Your task to perform on an android device: empty trash in the gmail app Image 0: 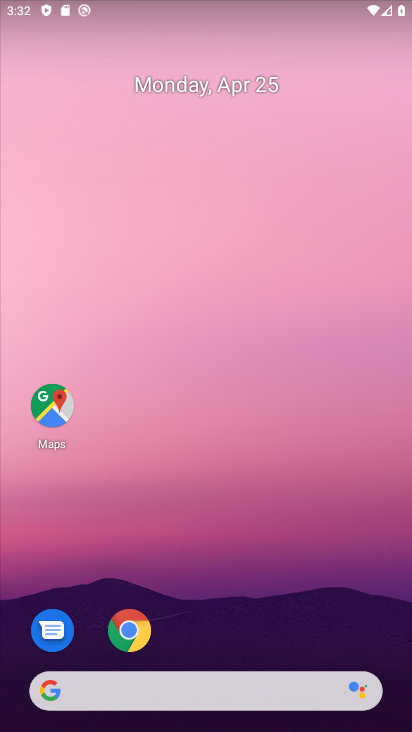
Step 0: drag from (353, 486) to (365, 115)
Your task to perform on an android device: empty trash in the gmail app Image 1: 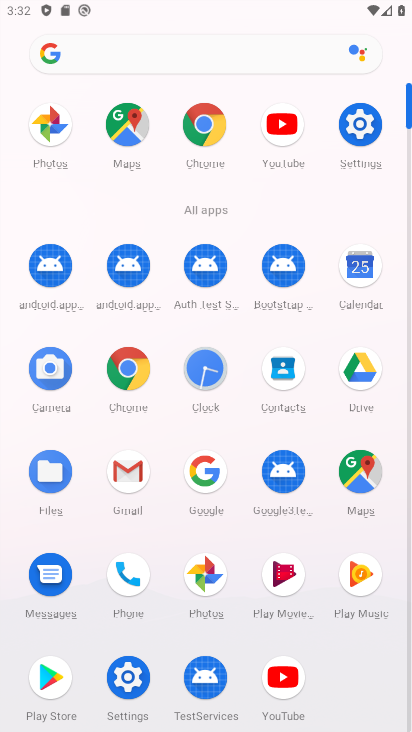
Step 1: click (138, 467)
Your task to perform on an android device: empty trash in the gmail app Image 2: 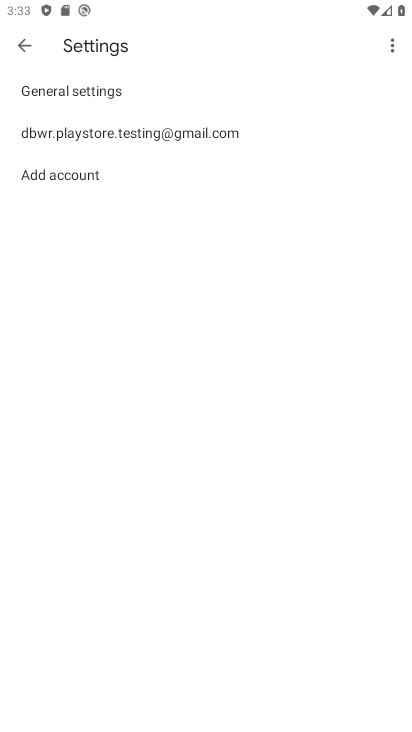
Step 2: click (55, 137)
Your task to perform on an android device: empty trash in the gmail app Image 3: 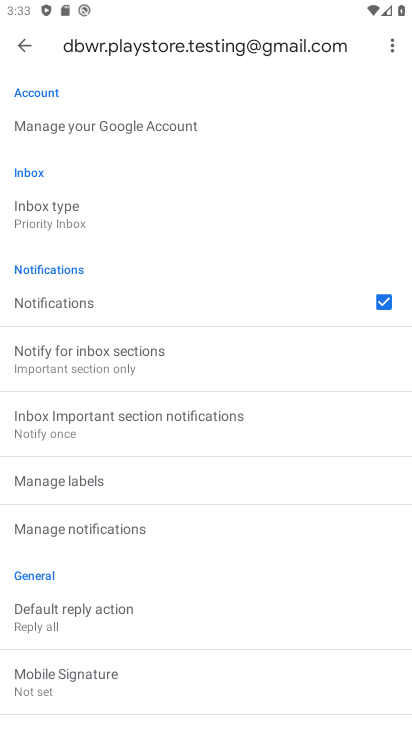
Step 3: click (29, 53)
Your task to perform on an android device: empty trash in the gmail app Image 4: 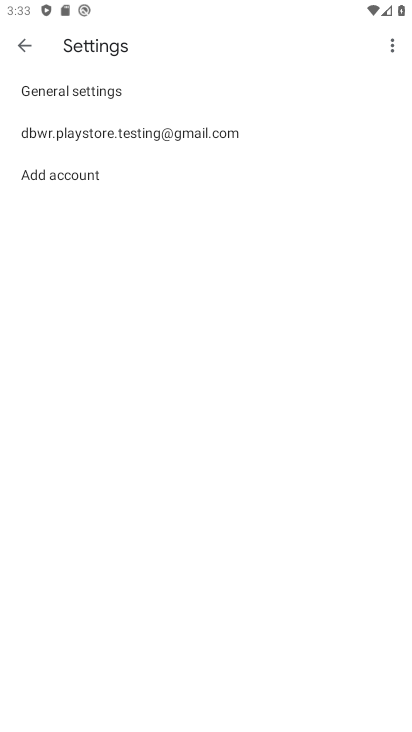
Step 4: click (28, 52)
Your task to perform on an android device: empty trash in the gmail app Image 5: 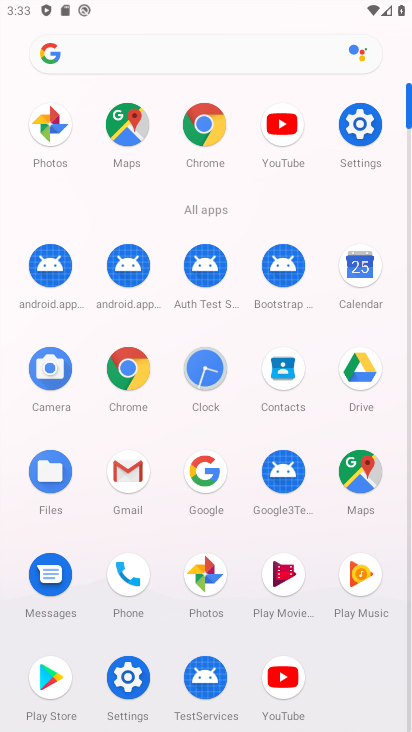
Step 5: click (140, 477)
Your task to perform on an android device: empty trash in the gmail app Image 6: 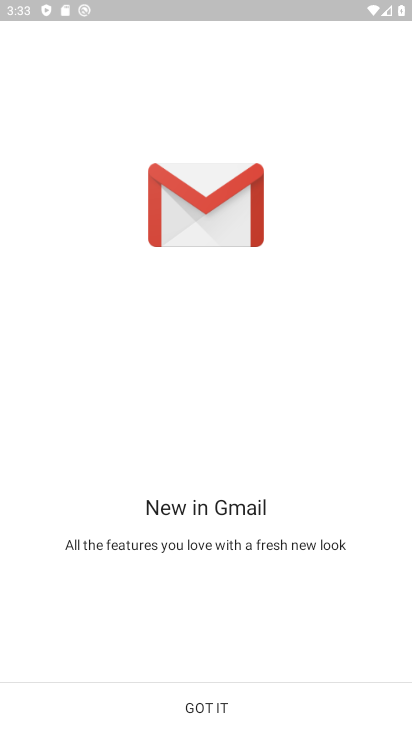
Step 6: click (221, 709)
Your task to perform on an android device: empty trash in the gmail app Image 7: 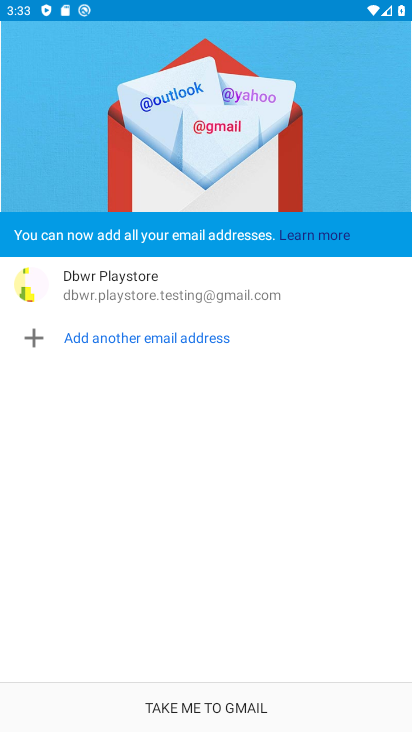
Step 7: click (182, 707)
Your task to perform on an android device: empty trash in the gmail app Image 8: 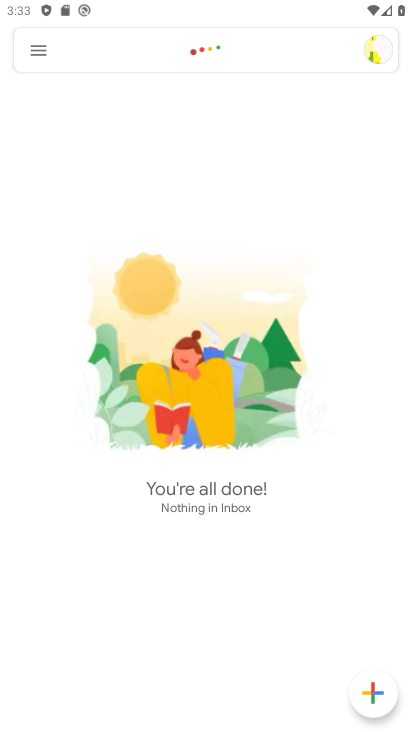
Step 8: click (24, 48)
Your task to perform on an android device: empty trash in the gmail app Image 9: 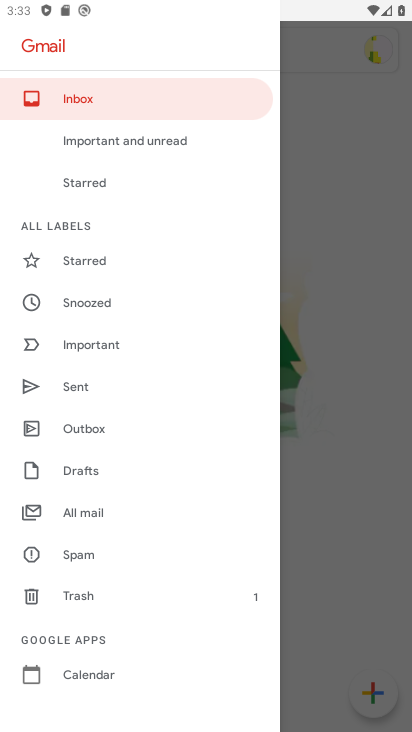
Step 9: click (88, 590)
Your task to perform on an android device: empty trash in the gmail app Image 10: 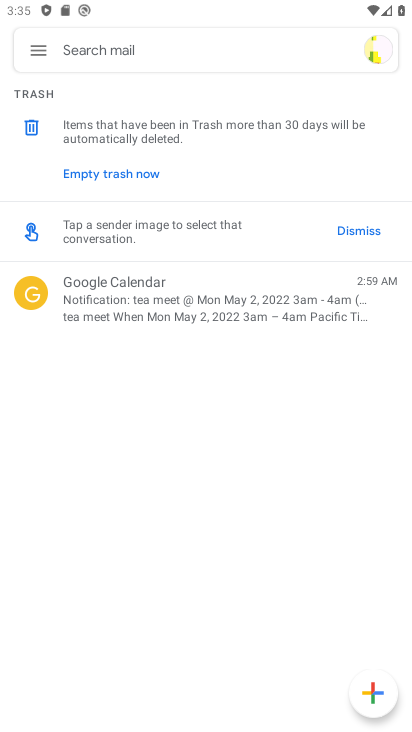
Step 10: press home button
Your task to perform on an android device: empty trash in the gmail app Image 11: 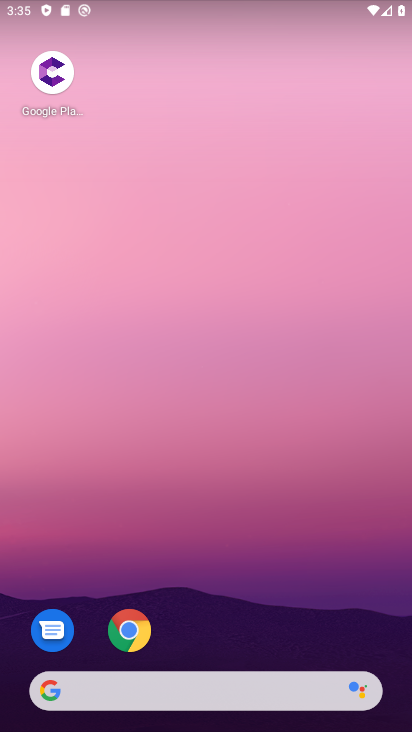
Step 11: drag from (296, 370) to (306, 53)
Your task to perform on an android device: empty trash in the gmail app Image 12: 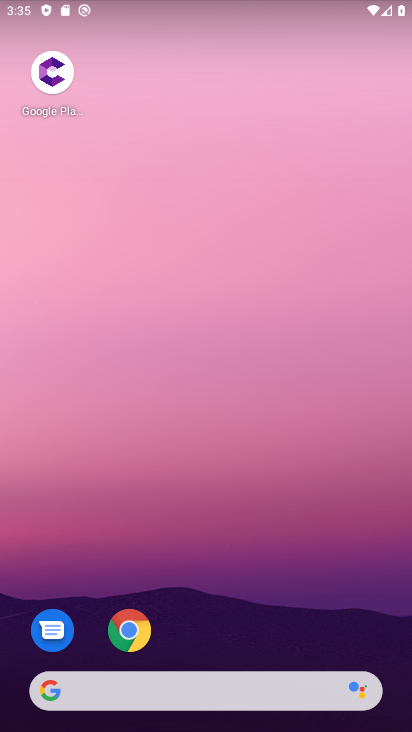
Step 12: drag from (276, 520) to (276, 20)
Your task to perform on an android device: empty trash in the gmail app Image 13: 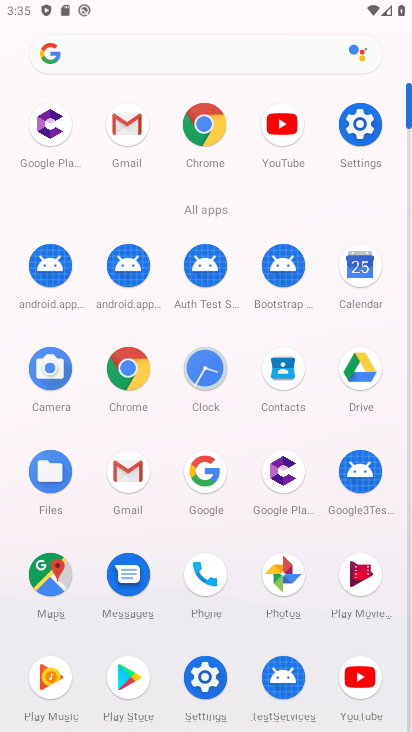
Step 13: click (116, 115)
Your task to perform on an android device: empty trash in the gmail app Image 14: 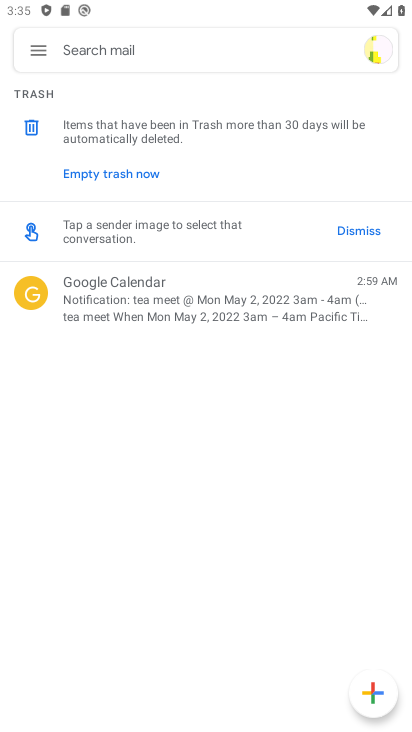
Step 14: click (37, 58)
Your task to perform on an android device: empty trash in the gmail app Image 15: 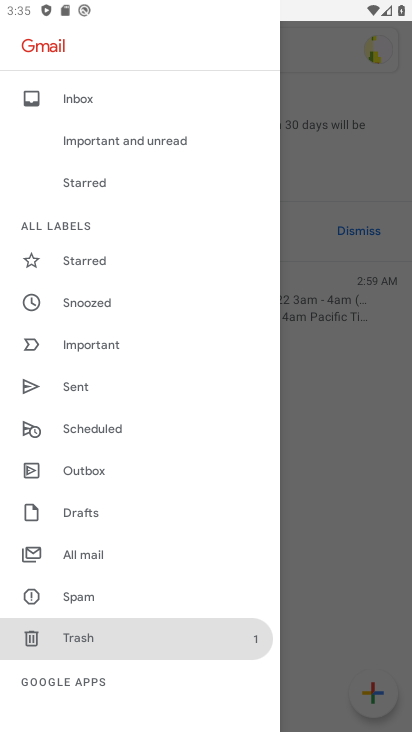
Step 15: click (74, 645)
Your task to perform on an android device: empty trash in the gmail app Image 16: 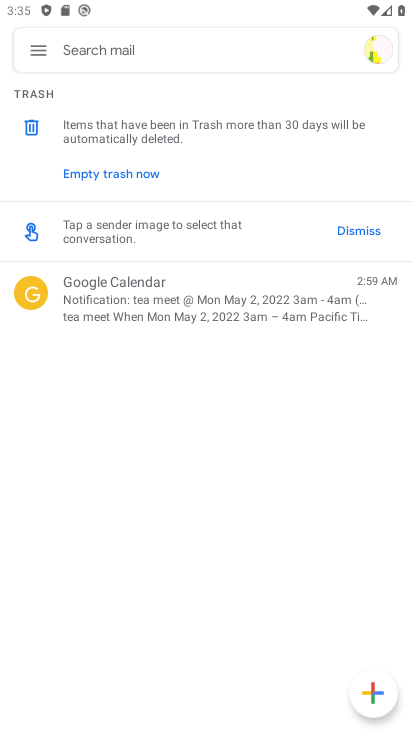
Step 16: click (115, 170)
Your task to perform on an android device: empty trash in the gmail app Image 17: 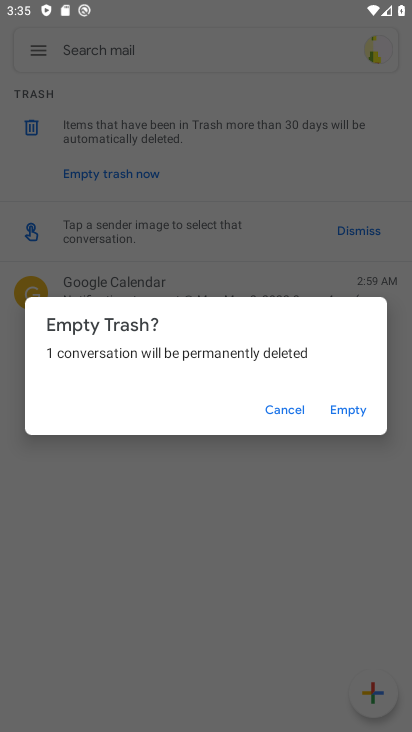
Step 17: click (347, 418)
Your task to perform on an android device: empty trash in the gmail app Image 18: 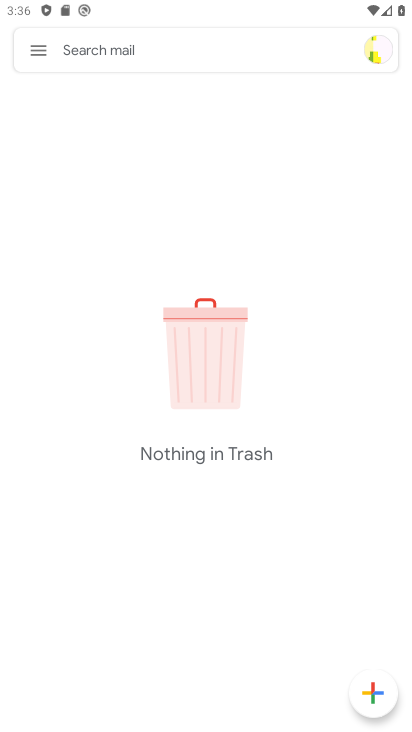
Step 18: task complete